Your task to perform on an android device: set the stopwatch Image 0: 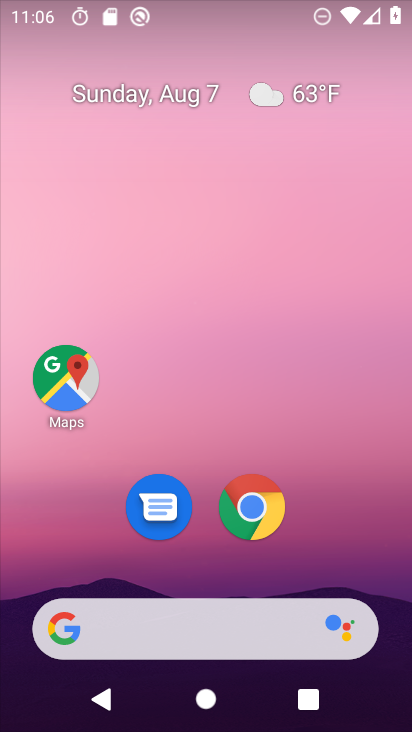
Step 0: drag from (399, 548) to (177, 28)
Your task to perform on an android device: set the stopwatch Image 1: 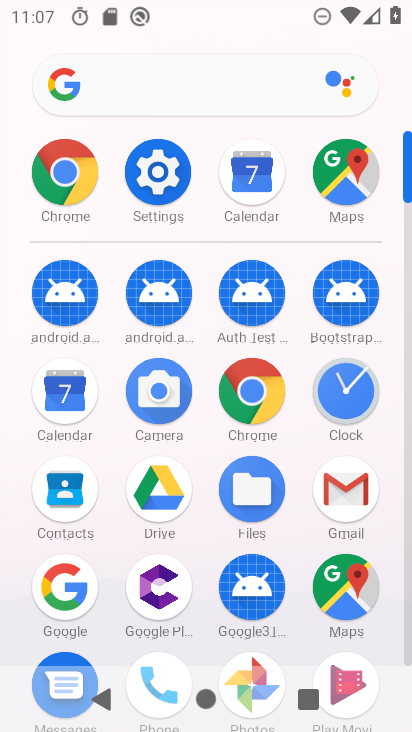
Step 1: click (326, 389)
Your task to perform on an android device: set the stopwatch Image 2: 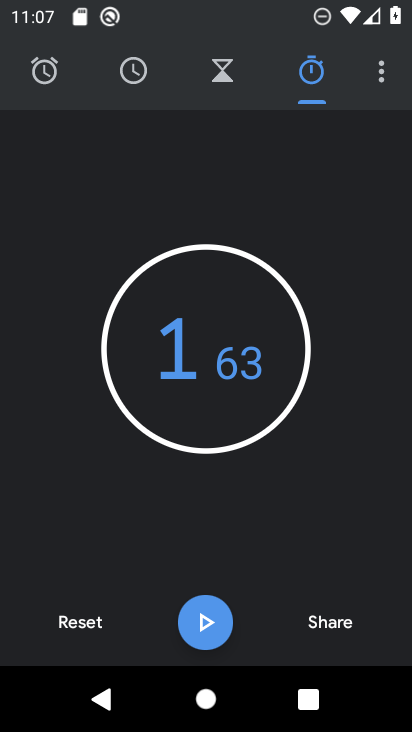
Step 2: task complete